Your task to perform on an android device: What is the speed of a tiger? Image 0: 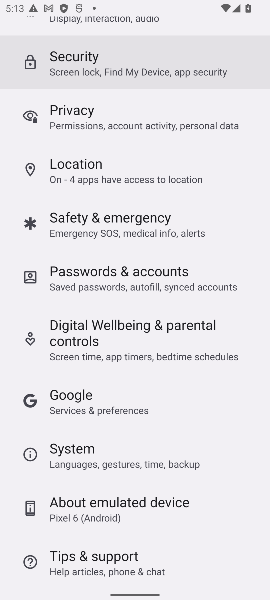
Step 0: press home button
Your task to perform on an android device: What is the speed of a tiger? Image 1: 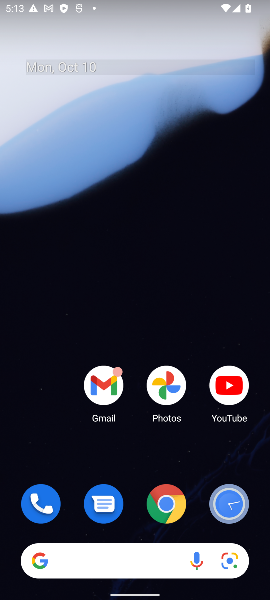
Step 1: drag from (187, 250) to (218, 0)
Your task to perform on an android device: What is the speed of a tiger? Image 2: 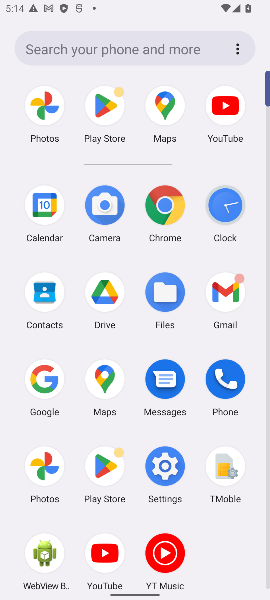
Step 2: click (168, 216)
Your task to perform on an android device: What is the speed of a tiger? Image 3: 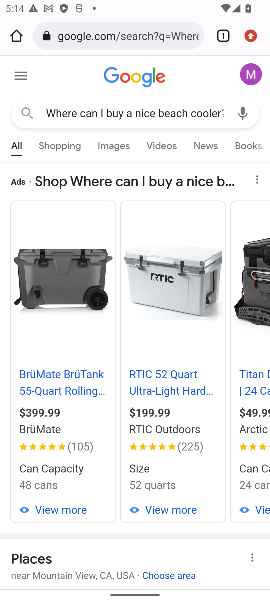
Step 3: click (132, 116)
Your task to perform on an android device: What is the speed of a tiger? Image 4: 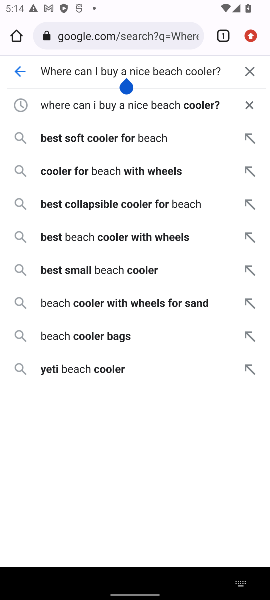
Step 4: click (129, 104)
Your task to perform on an android device: What is the speed of a tiger? Image 5: 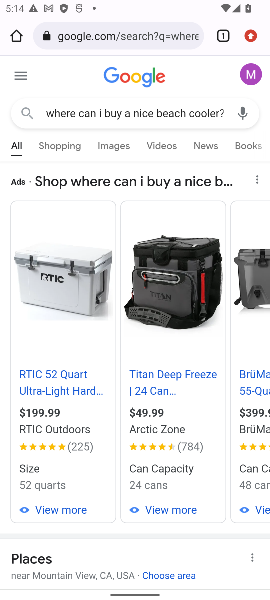
Step 5: click (168, 28)
Your task to perform on an android device: What is the speed of a tiger? Image 6: 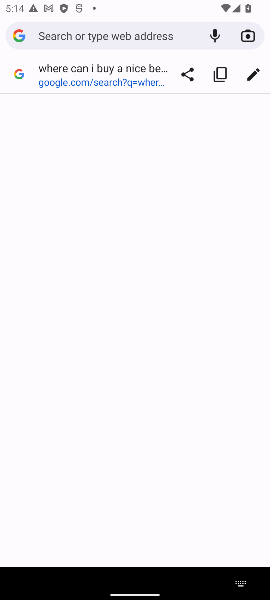
Step 6: type "What is the speed of a tiger?"
Your task to perform on an android device: What is the speed of a tiger? Image 7: 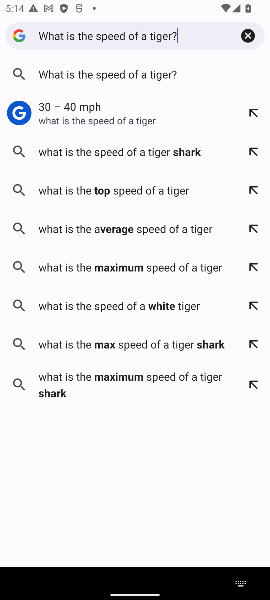
Step 7: press enter
Your task to perform on an android device: What is the speed of a tiger? Image 8: 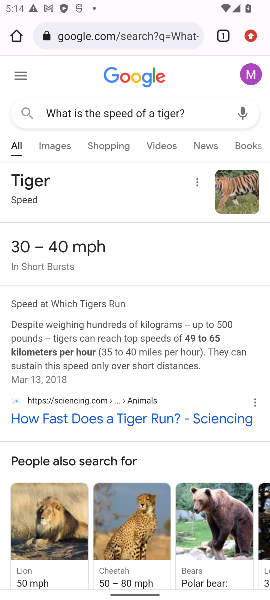
Step 8: task complete